Your task to perform on an android device: turn off javascript in the chrome app Image 0: 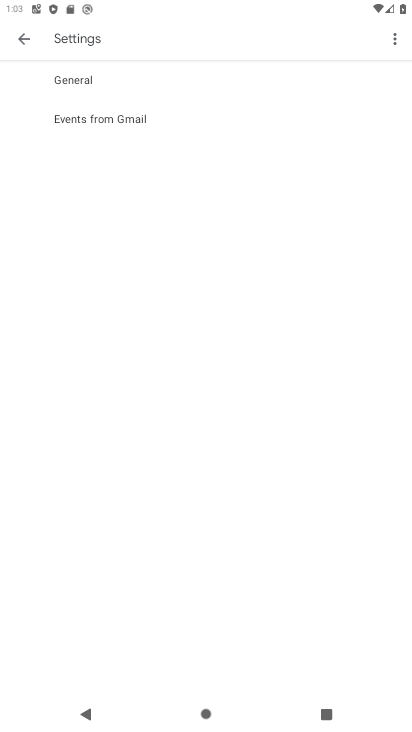
Step 0: press home button
Your task to perform on an android device: turn off javascript in the chrome app Image 1: 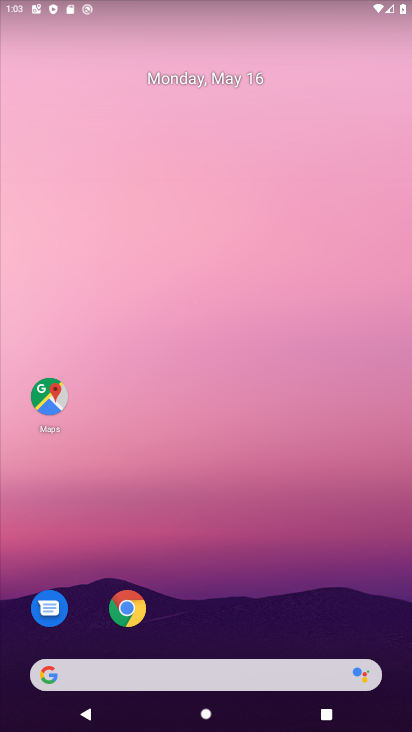
Step 1: click (133, 604)
Your task to perform on an android device: turn off javascript in the chrome app Image 2: 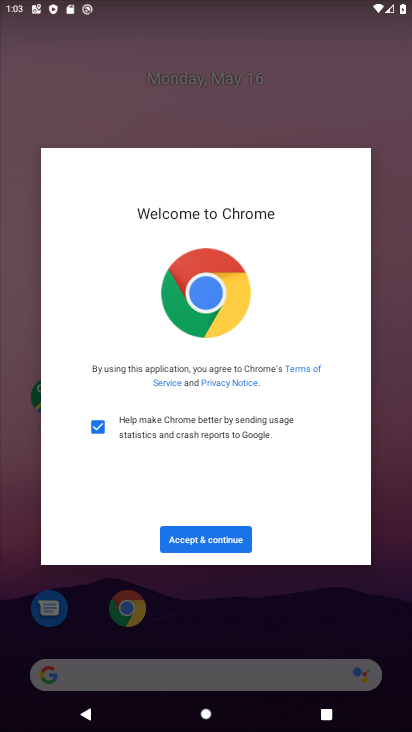
Step 2: click (217, 542)
Your task to perform on an android device: turn off javascript in the chrome app Image 3: 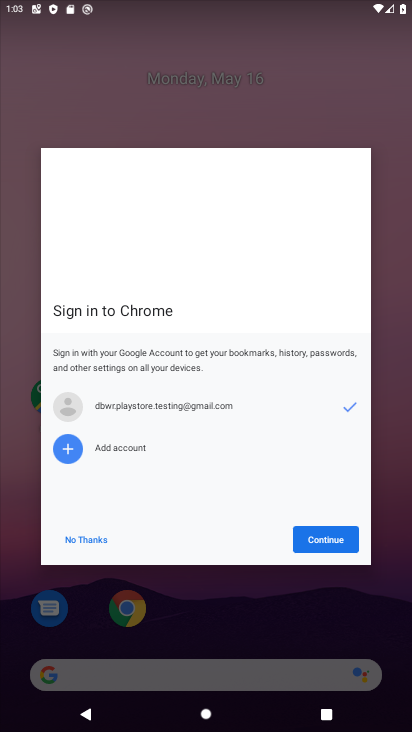
Step 3: click (333, 537)
Your task to perform on an android device: turn off javascript in the chrome app Image 4: 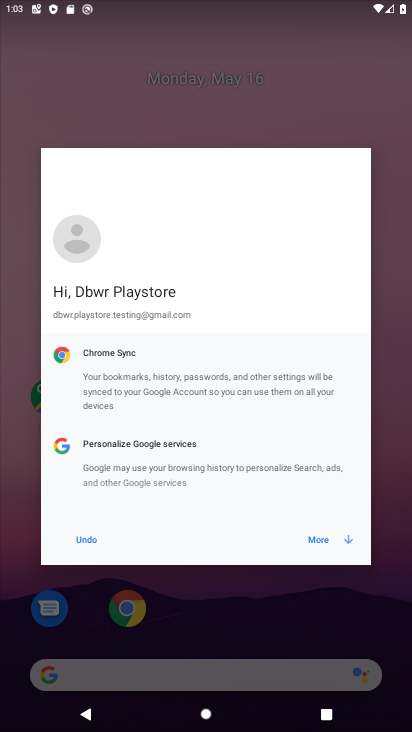
Step 4: click (332, 542)
Your task to perform on an android device: turn off javascript in the chrome app Image 5: 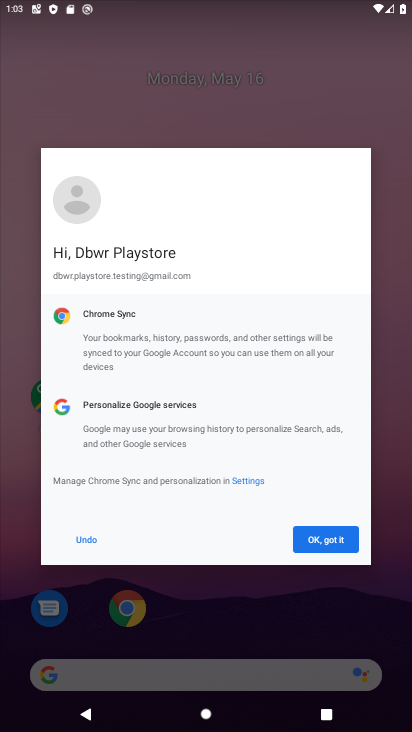
Step 5: click (333, 543)
Your task to perform on an android device: turn off javascript in the chrome app Image 6: 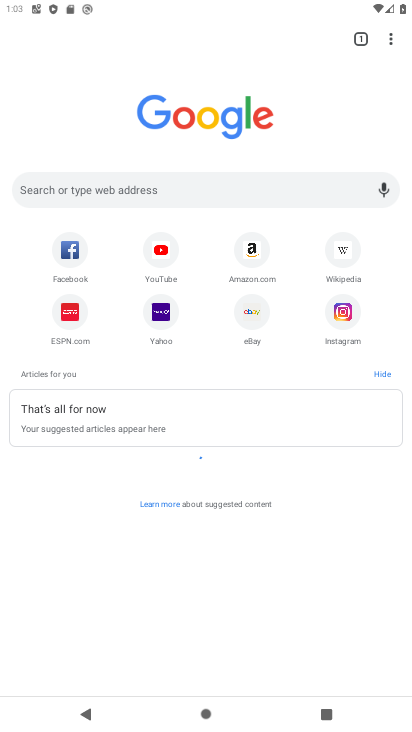
Step 6: drag from (387, 42) to (309, 313)
Your task to perform on an android device: turn off javascript in the chrome app Image 7: 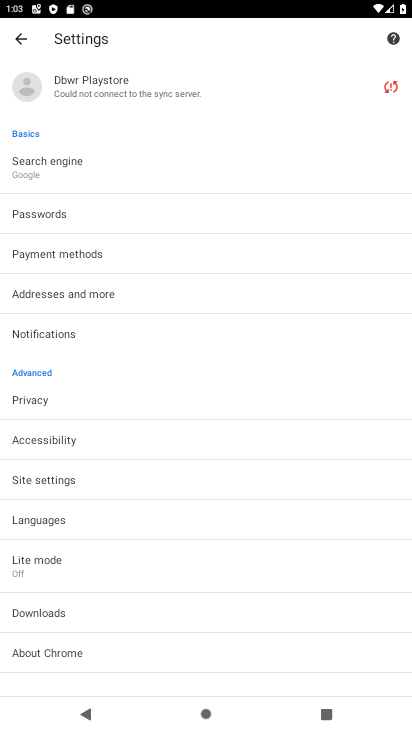
Step 7: click (109, 486)
Your task to perform on an android device: turn off javascript in the chrome app Image 8: 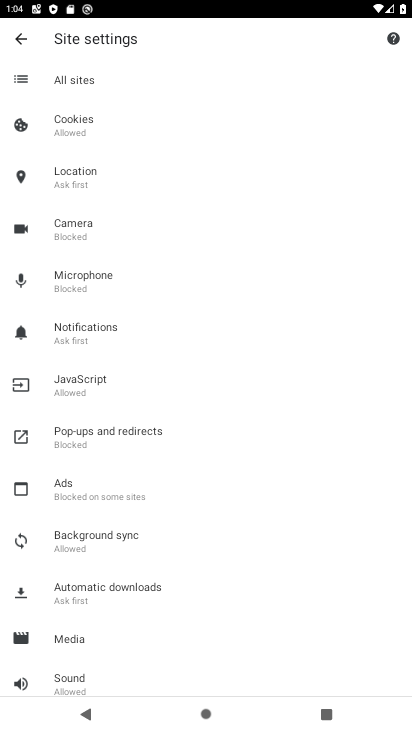
Step 8: drag from (103, 516) to (144, 383)
Your task to perform on an android device: turn off javascript in the chrome app Image 9: 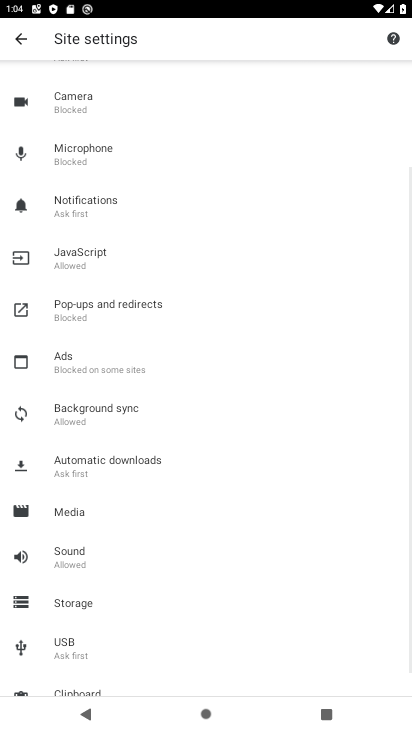
Step 9: click (141, 252)
Your task to perform on an android device: turn off javascript in the chrome app Image 10: 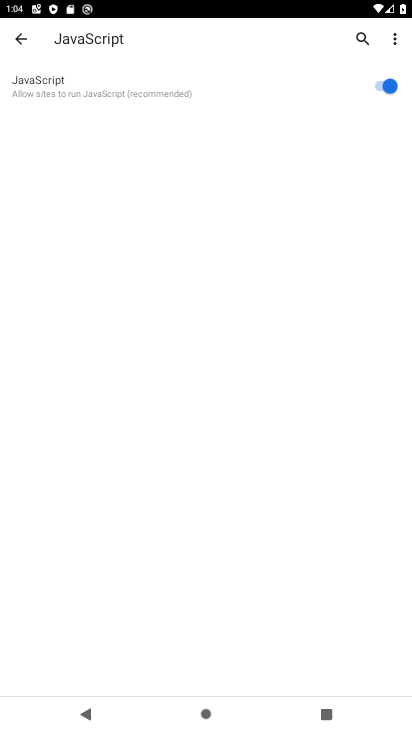
Step 10: click (385, 86)
Your task to perform on an android device: turn off javascript in the chrome app Image 11: 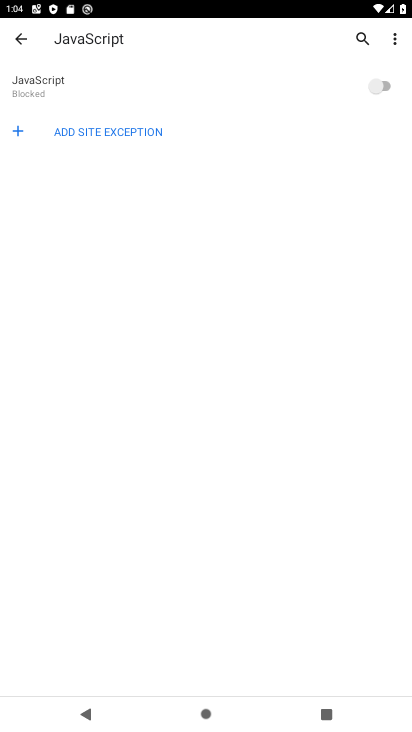
Step 11: task complete